Your task to perform on an android device: turn on data saver in the chrome app Image 0: 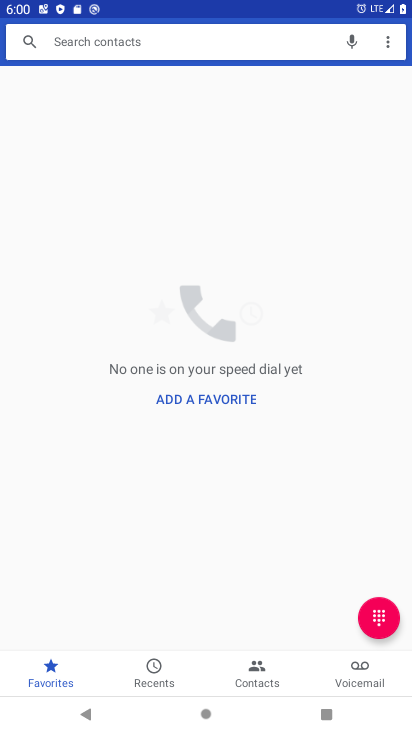
Step 0: press home button
Your task to perform on an android device: turn on data saver in the chrome app Image 1: 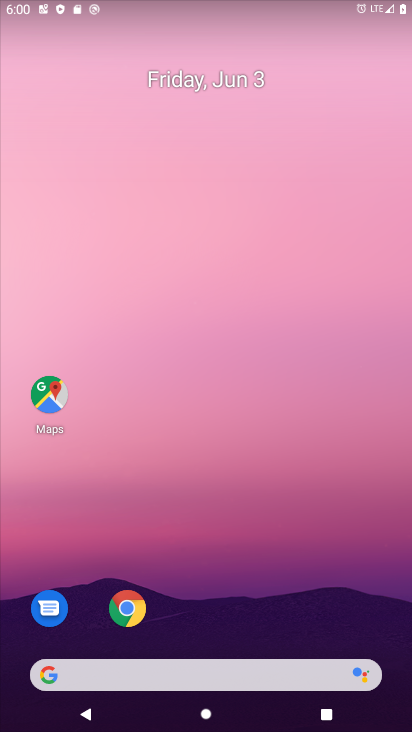
Step 1: click (129, 609)
Your task to perform on an android device: turn on data saver in the chrome app Image 2: 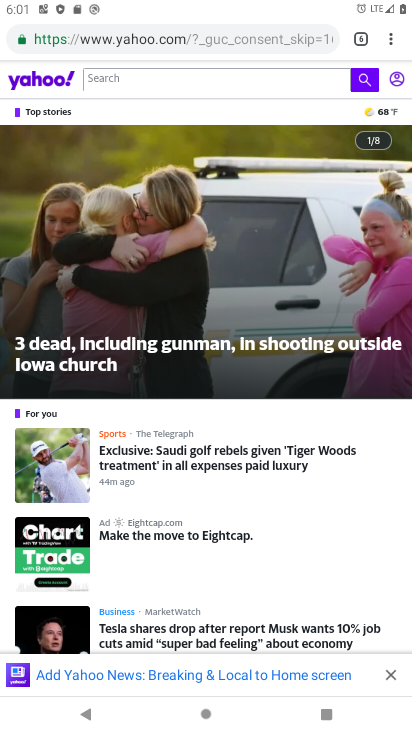
Step 2: click (394, 26)
Your task to perform on an android device: turn on data saver in the chrome app Image 3: 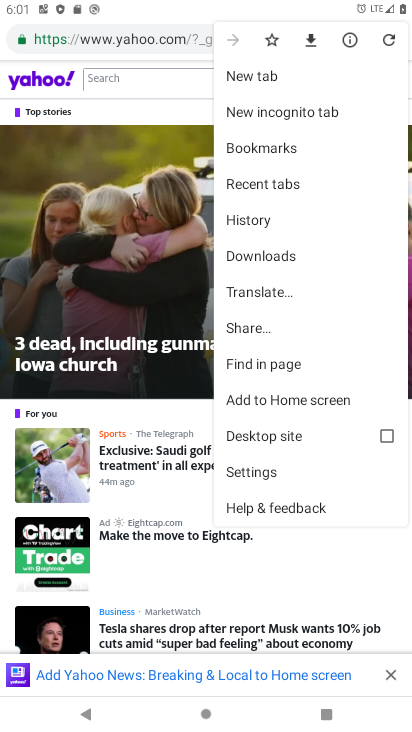
Step 3: click (237, 471)
Your task to perform on an android device: turn on data saver in the chrome app Image 4: 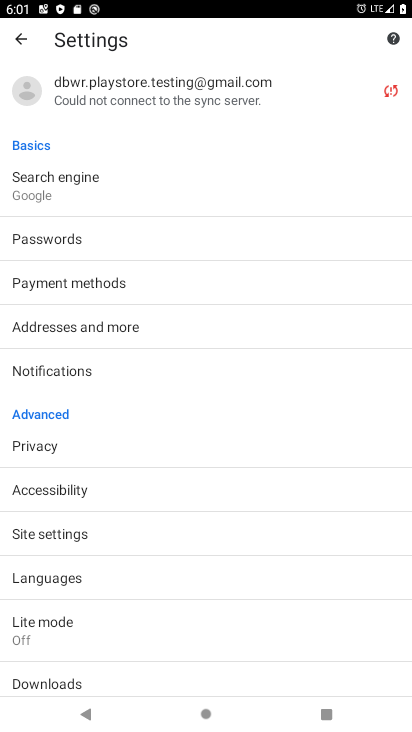
Step 4: click (104, 448)
Your task to perform on an android device: turn on data saver in the chrome app Image 5: 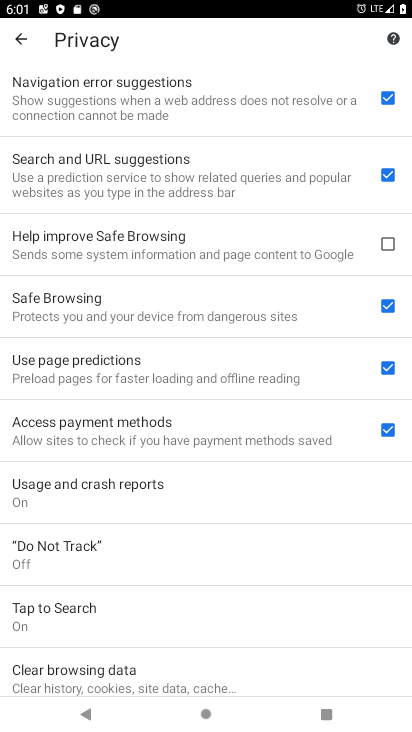
Step 5: task complete